Your task to perform on an android device: Open Youtube and go to the subscriptions tab Image 0: 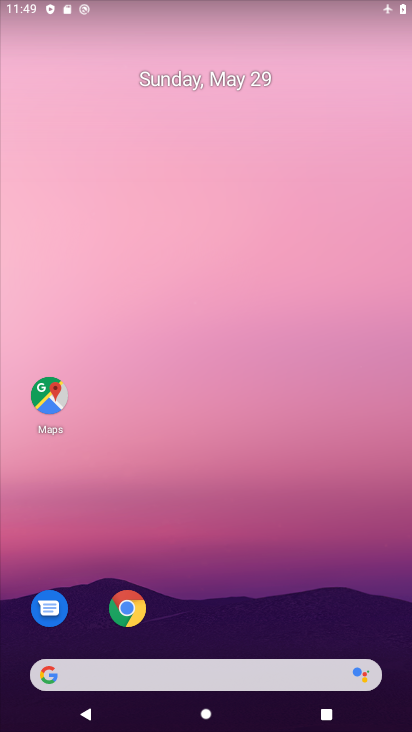
Step 0: drag from (205, 650) to (175, 314)
Your task to perform on an android device: Open Youtube and go to the subscriptions tab Image 1: 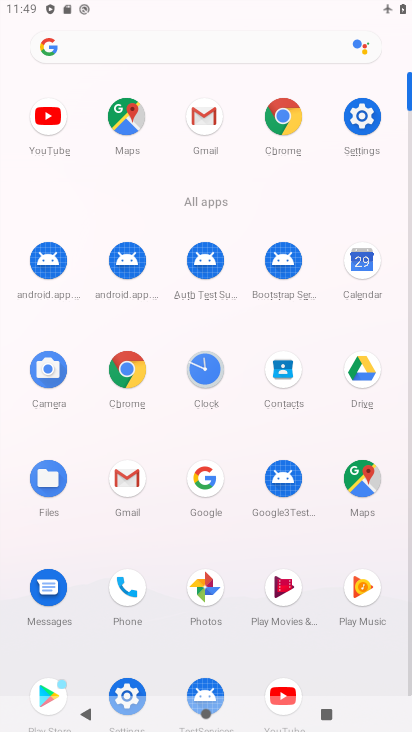
Step 1: click (270, 697)
Your task to perform on an android device: Open Youtube and go to the subscriptions tab Image 2: 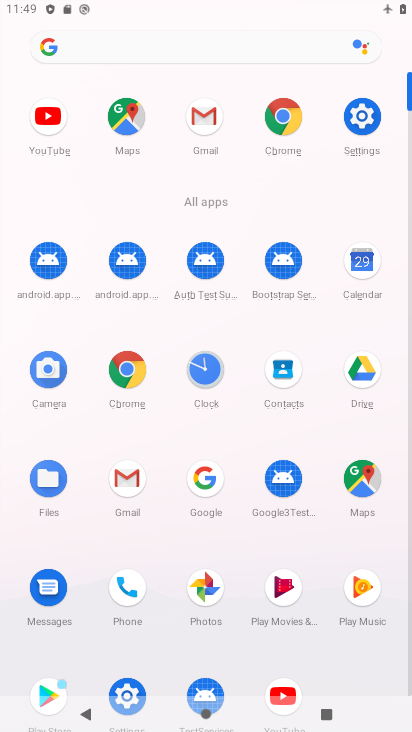
Step 2: click (286, 688)
Your task to perform on an android device: Open Youtube and go to the subscriptions tab Image 3: 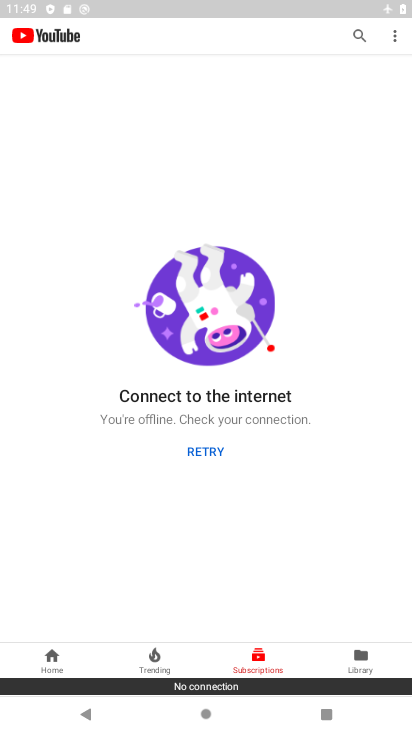
Step 3: click (218, 550)
Your task to perform on an android device: Open Youtube and go to the subscriptions tab Image 4: 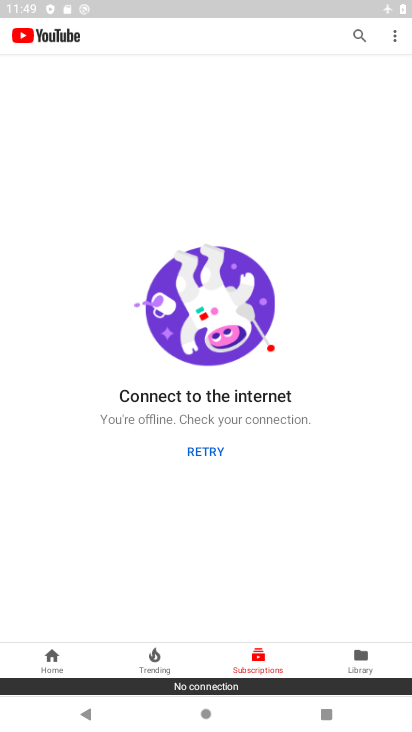
Step 4: task complete